Your task to perform on an android device: delete a single message in the gmail app Image 0: 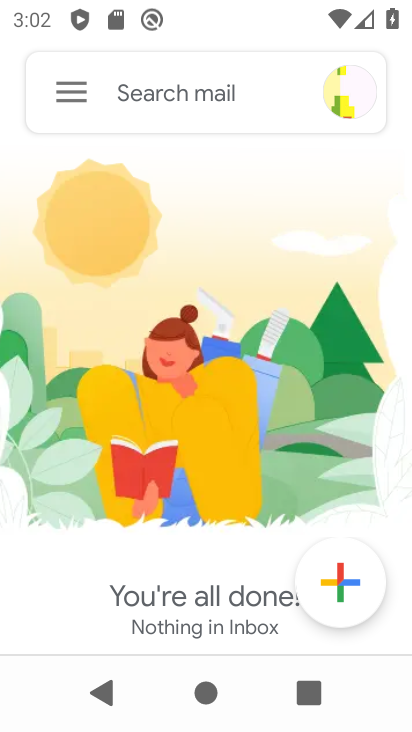
Step 0: click (74, 92)
Your task to perform on an android device: delete a single message in the gmail app Image 1: 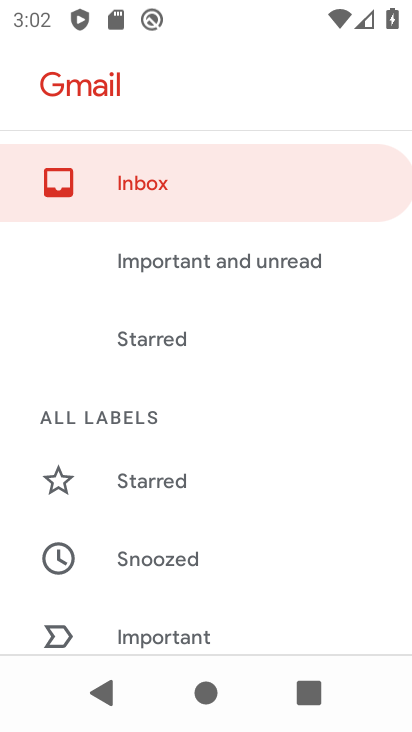
Step 1: drag from (207, 564) to (202, 115)
Your task to perform on an android device: delete a single message in the gmail app Image 2: 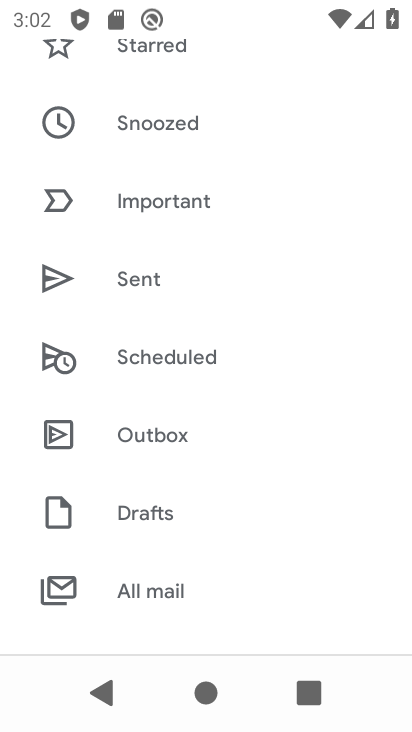
Step 2: click (143, 598)
Your task to perform on an android device: delete a single message in the gmail app Image 3: 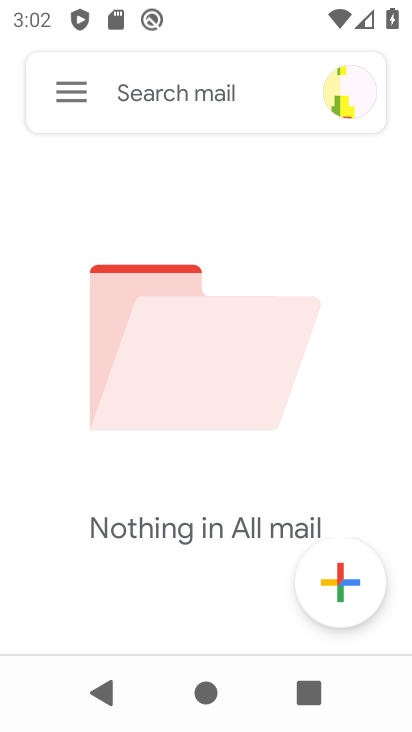
Step 3: task complete